Your task to perform on an android device: open the mobile data screen to see how much data has been used Image 0: 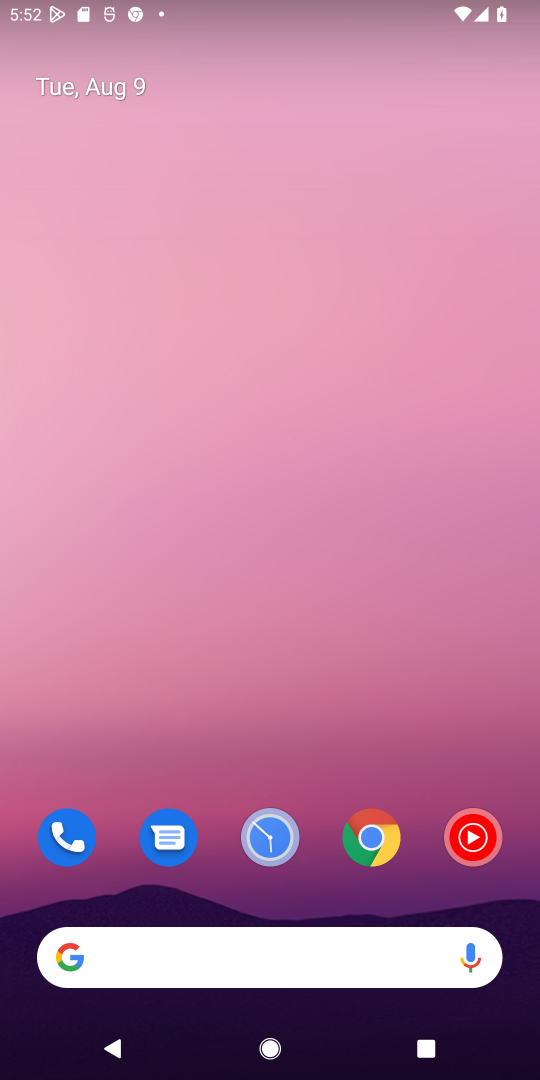
Step 0: drag from (42, 857) to (157, 390)
Your task to perform on an android device: open the mobile data screen to see how much data has been used Image 1: 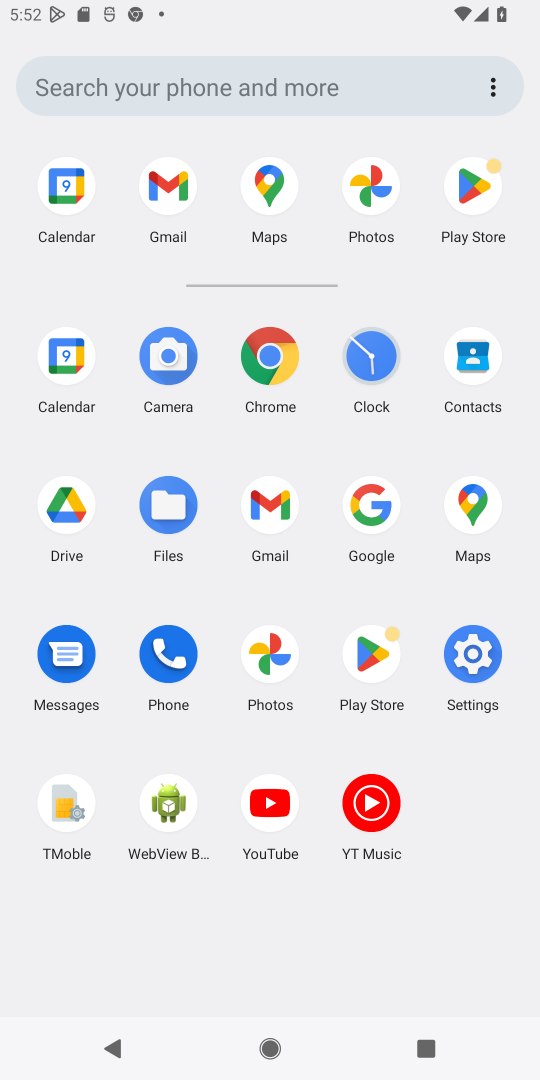
Step 1: click (486, 644)
Your task to perform on an android device: open the mobile data screen to see how much data has been used Image 2: 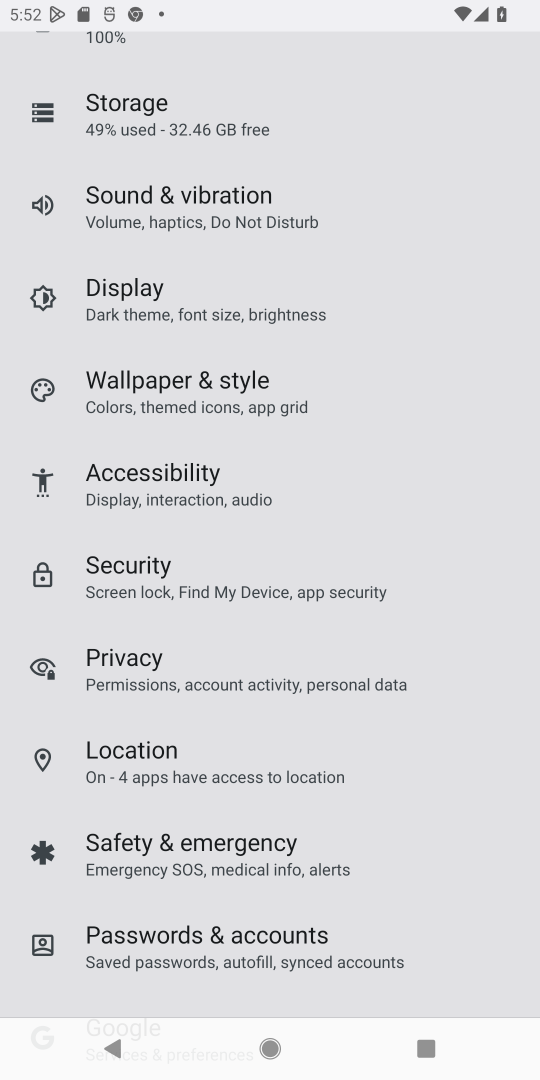
Step 2: drag from (173, 208) to (138, 920)
Your task to perform on an android device: open the mobile data screen to see how much data has been used Image 3: 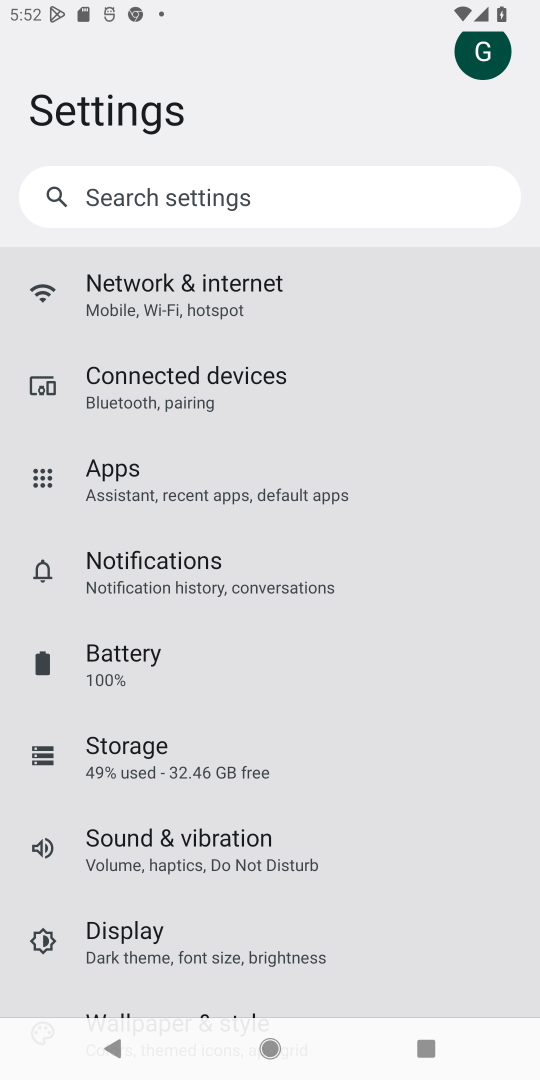
Step 3: click (236, 286)
Your task to perform on an android device: open the mobile data screen to see how much data has been used Image 4: 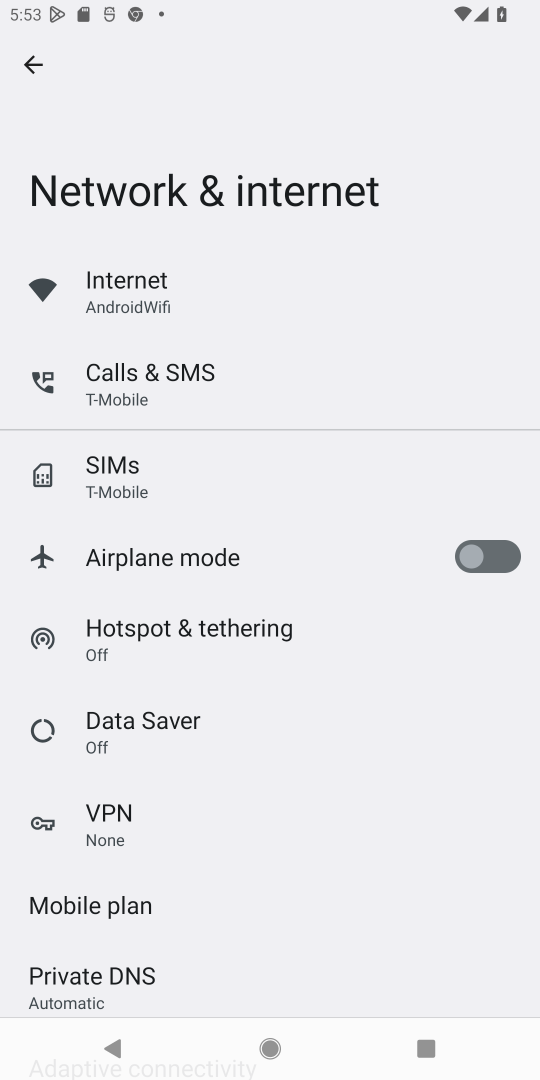
Step 4: click (137, 446)
Your task to perform on an android device: open the mobile data screen to see how much data has been used Image 5: 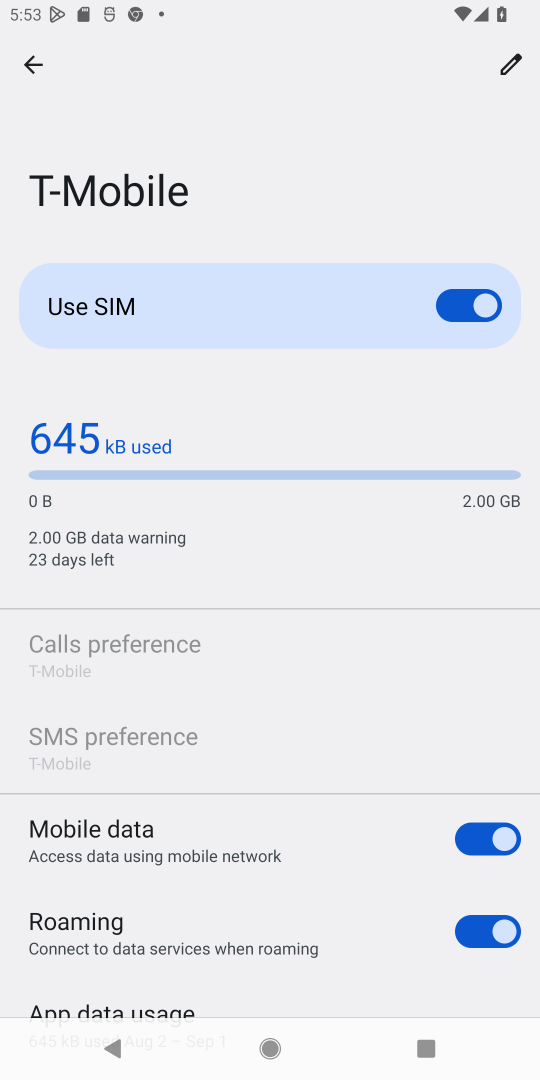
Step 5: task complete